Your task to perform on an android device: Open Chrome and go to the settings page Image 0: 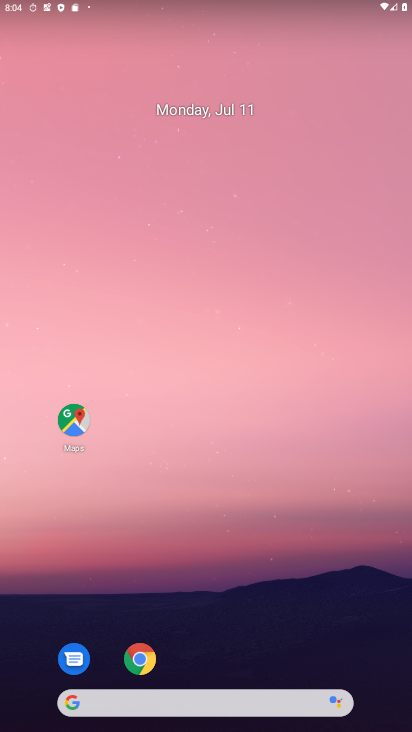
Step 0: drag from (245, 634) to (261, 98)
Your task to perform on an android device: Open Chrome and go to the settings page Image 1: 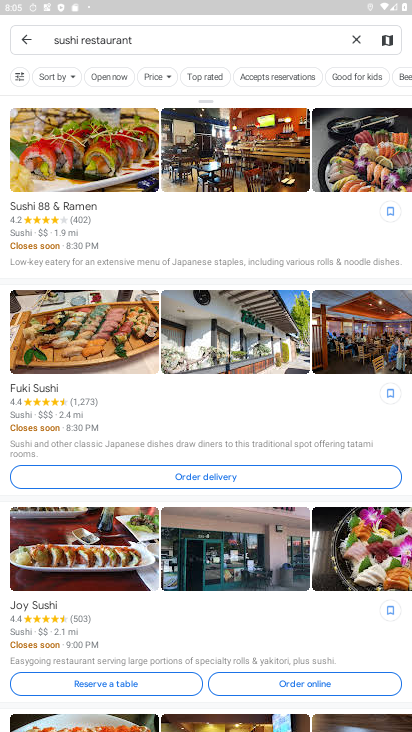
Step 1: press home button
Your task to perform on an android device: Open Chrome and go to the settings page Image 2: 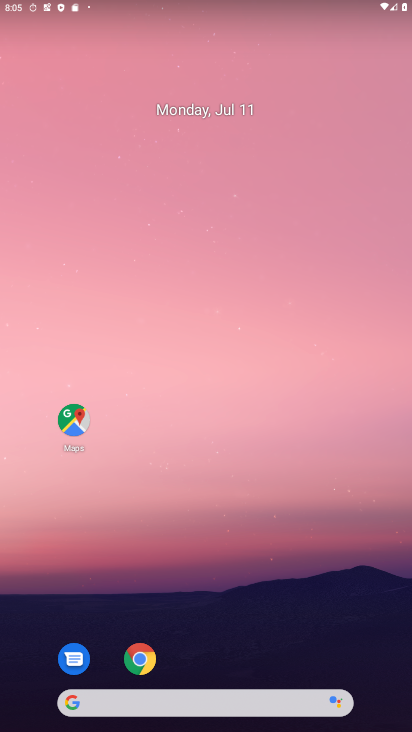
Step 2: drag from (203, 396) to (189, 3)
Your task to perform on an android device: Open Chrome and go to the settings page Image 3: 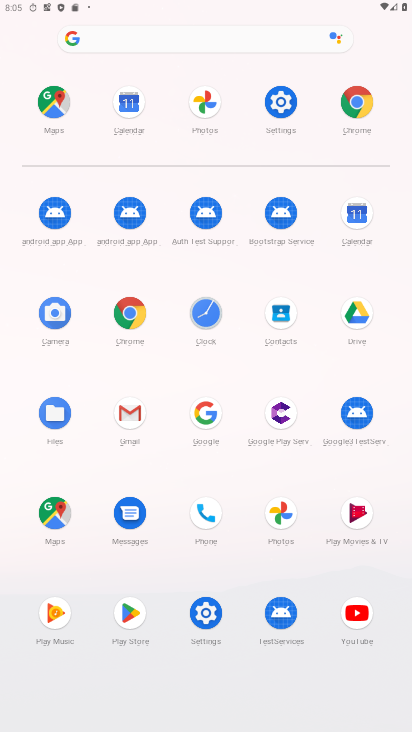
Step 3: click (347, 108)
Your task to perform on an android device: Open Chrome and go to the settings page Image 4: 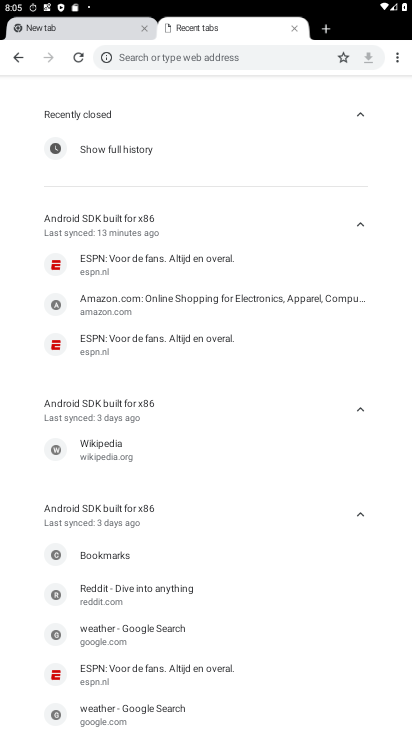
Step 4: click (15, 59)
Your task to perform on an android device: Open Chrome and go to the settings page Image 5: 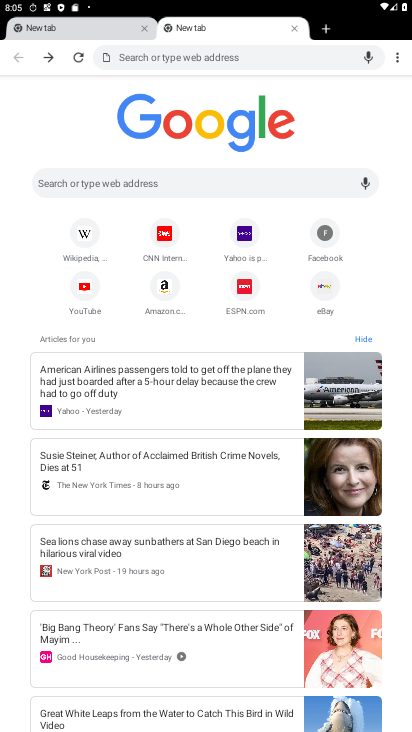
Step 5: task complete